Your task to perform on an android device: stop showing notifications on the lock screen Image 0: 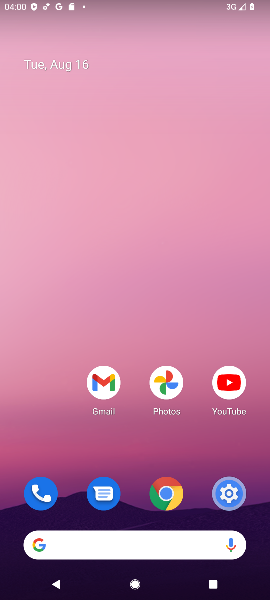
Step 0: press home button
Your task to perform on an android device: stop showing notifications on the lock screen Image 1: 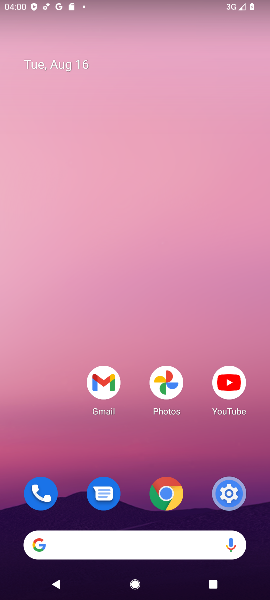
Step 1: drag from (61, 468) to (61, 146)
Your task to perform on an android device: stop showing notifications on the lock screen Image 2: 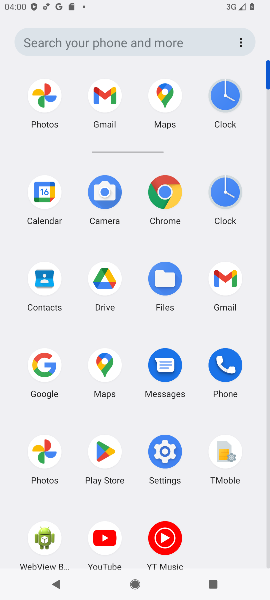
Step 2: click (161, 456)
Your task to perform on an android device: stop showing notifications on the lock screen Image 3: 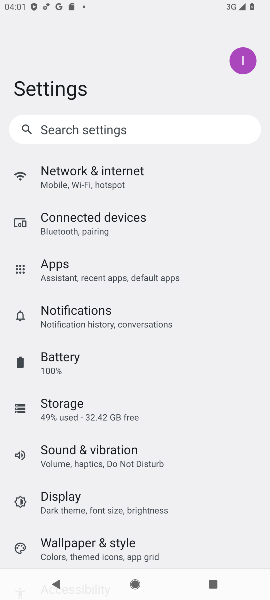
Step 3: click (172, 312)
Your task to perform on an android device: stop showing notifications on the lock screen Image 4: 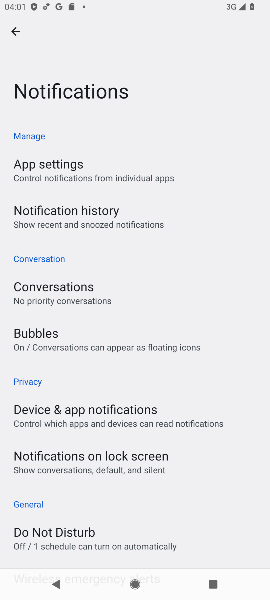
Step 4: drag from (208, 456) to (229, 349)
Your task to perform on an android device: stop showing notifications on the lock screen Image 5: 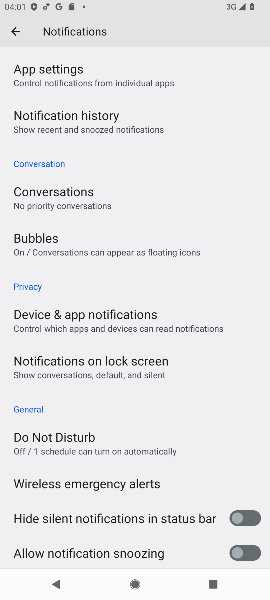
Step 5: drag from (189, 477) to (214, 314)
Your task to perform on an android device: stop showing notifications on the lock screen Image 6: 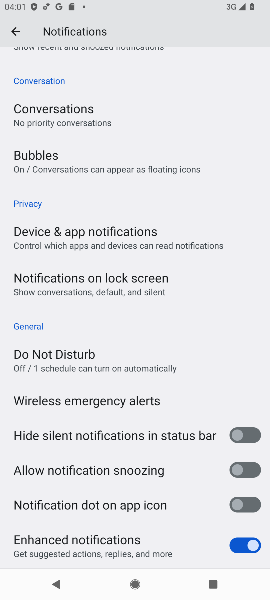
Step 6: click (187, 289)
Your task to perform on an android device: stop showing notifications on the lock screen Image 7: 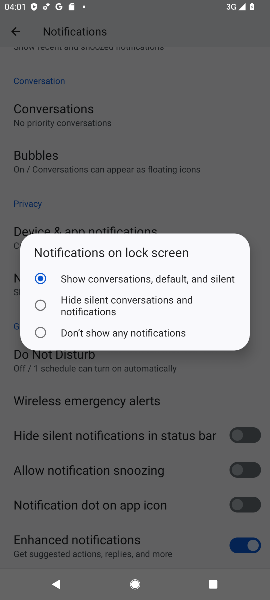
Step 7: click (163, 333)
Your task to perform on an android device: stop showing notifications on the lock screen Image 8: 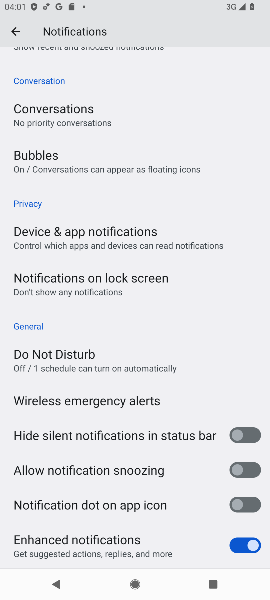
Step 8: task complete